Your task to perform on an android device: Open Wikipedia Image 0: 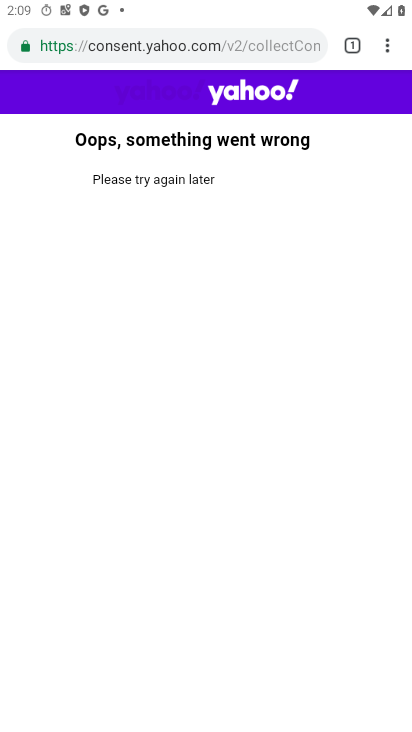
Step 0: click (245, 45)
Your task to perform on an android device: Open Wikipedia Image 1: 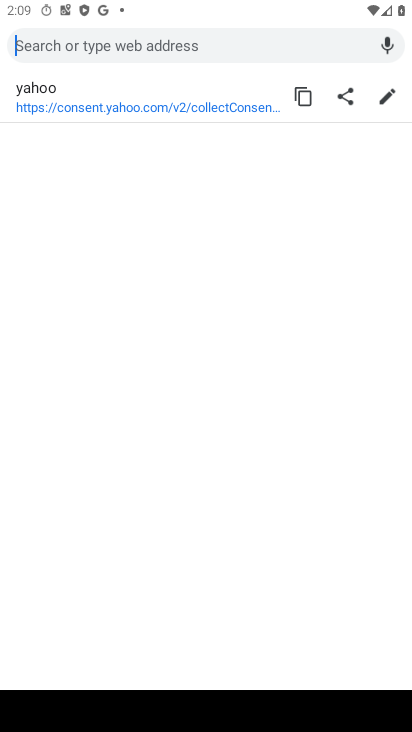
Step 1: type "wikipedia"
Your task to perform on an android device: Open Wikipedia Image 2: 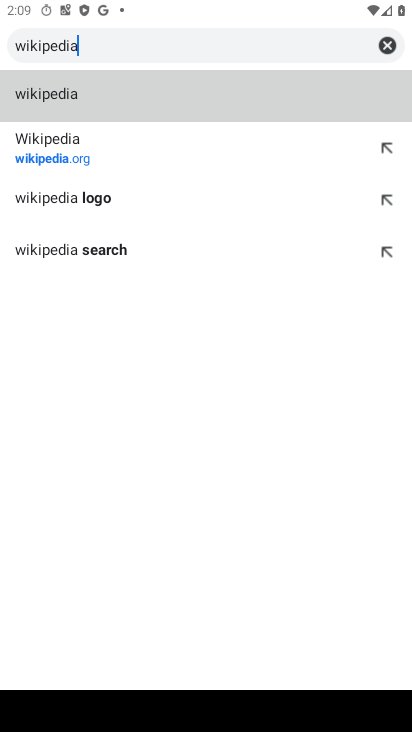
Step 2: click (157, 89)
Your task to perform on an android device: Open Wikipedia Image 3: 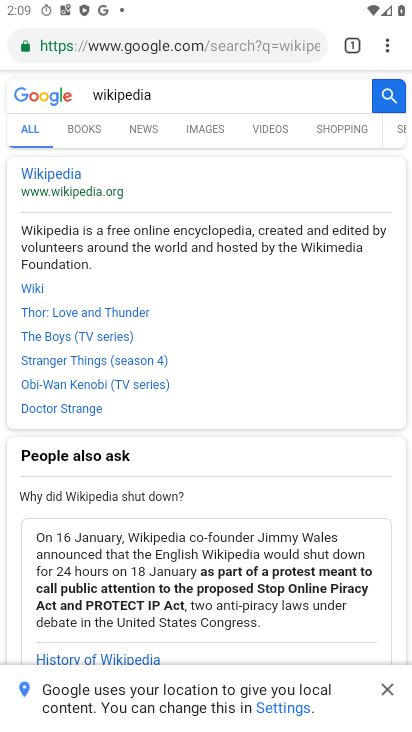
Step 3: click (58, 174)
Your task to perform on an android device: Open Wikipedia Image 4: 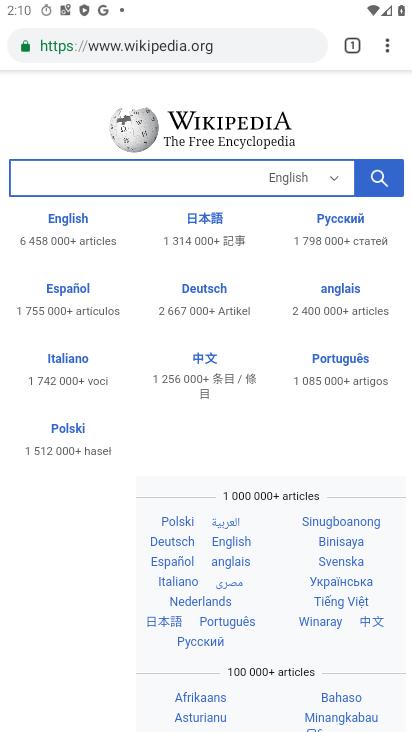
Step 4: task complete